Your task to perform on an android device: Go to sound settings Image 0: 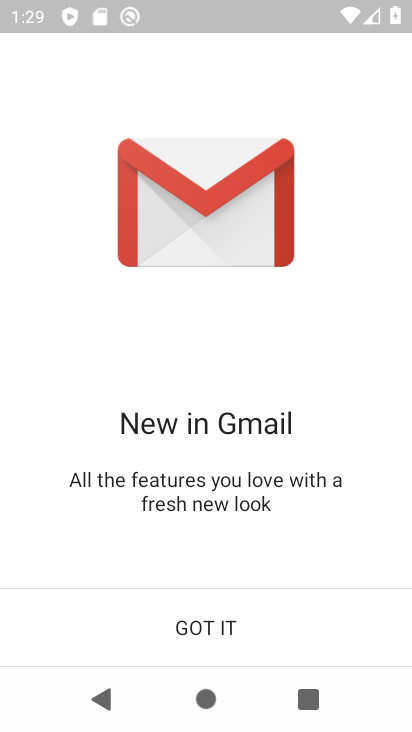
Step 0: press home button
Your task to perform on an android device: Go to sound settings Image 1: 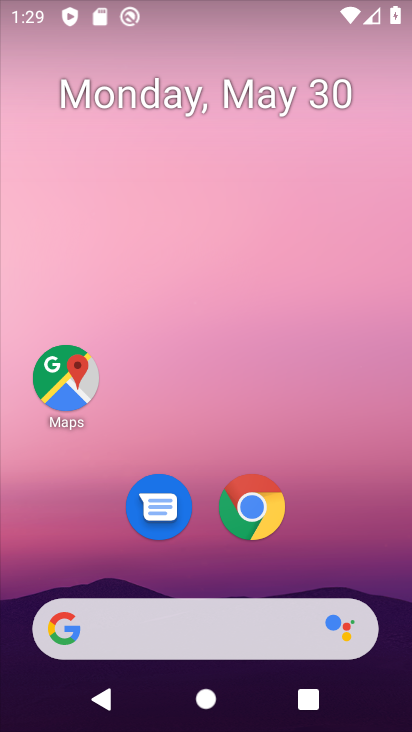
Step 1: drag from (220, 558) to (174, 105)
Your task to perform on an android device: Go to sound settings Image 2: 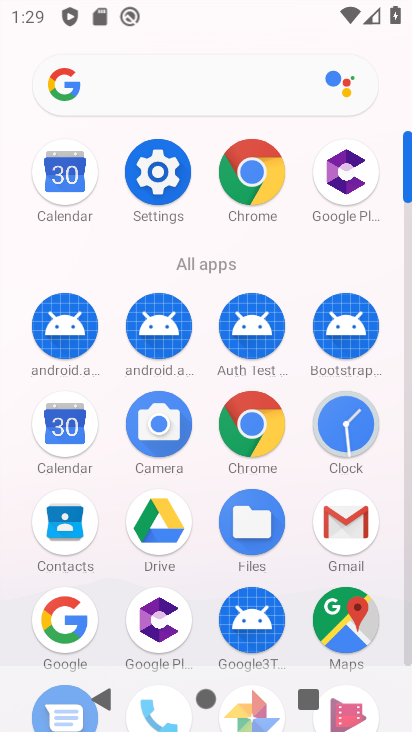
Step 2: click (147, 183)
Your task to perform on an android device: Go to sound settings Image 3: 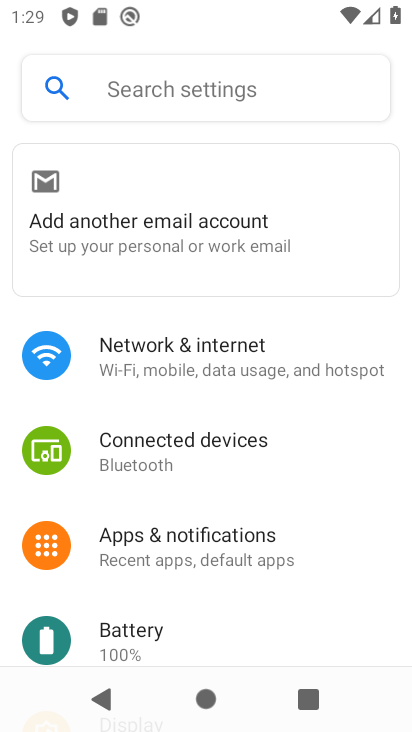
Step 3: click (209, 162)
Your task to perform on an android device: Go to sound settings Image 4: 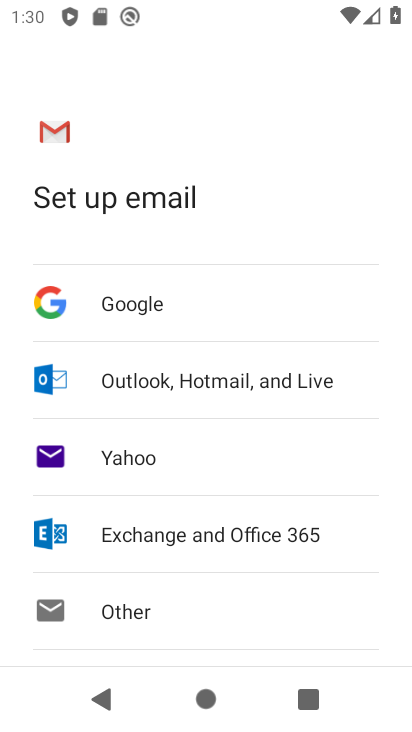
Step 4: press back button
Your task to perform on an android device: Go to sound settings Image 5: 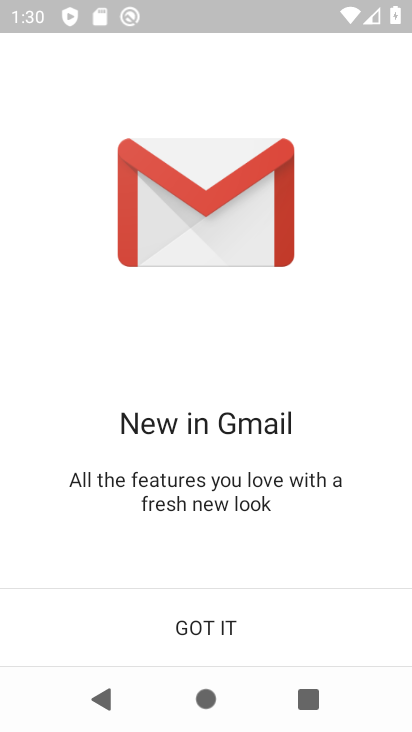
Step 5: press home button
Your task to perform on an android device: Go to sound settings Image 6: 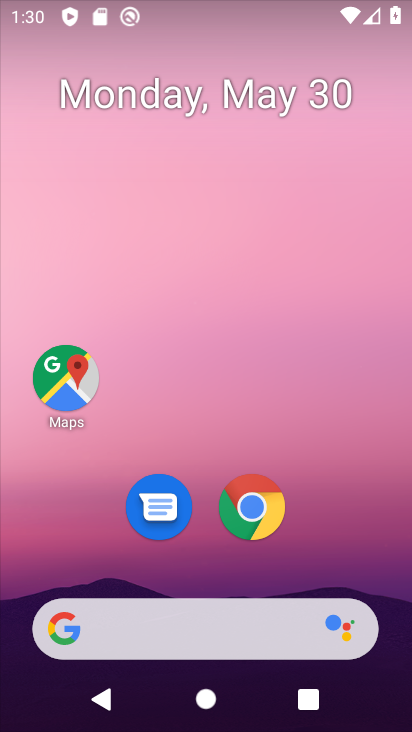
Step 6: drag from (206, 113) to (11, 143)
Your task to perform on an android device: Go to sound settings Image 7: 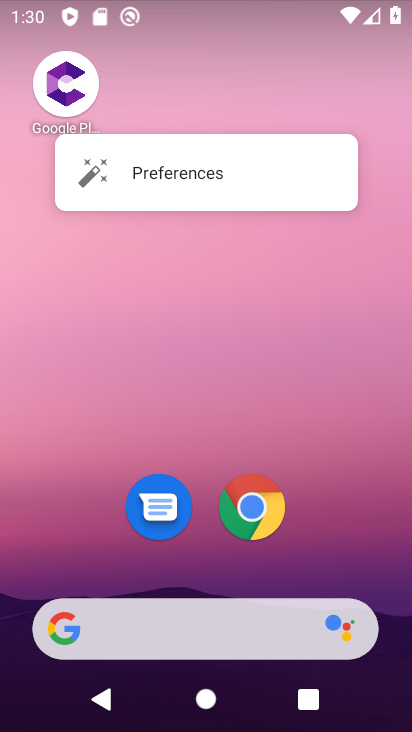
Step 7: click (317, 523)
Your task to perform on an android device: Go to sound settings Image 8: 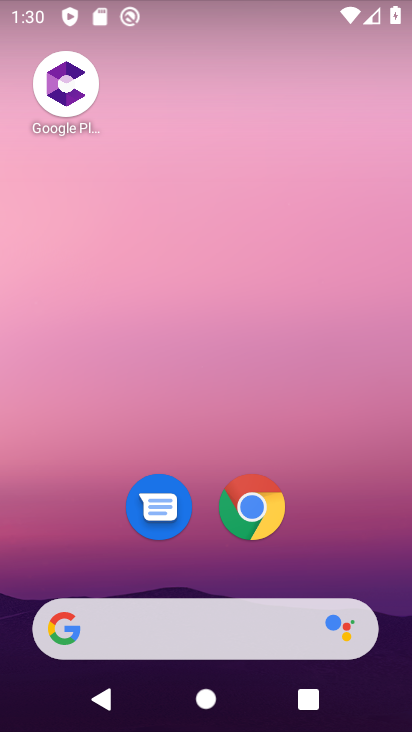
Step 8: drag from (292, 553) to (222, 43)
Your task to perform on an android device: Go to sound settings Image 9: 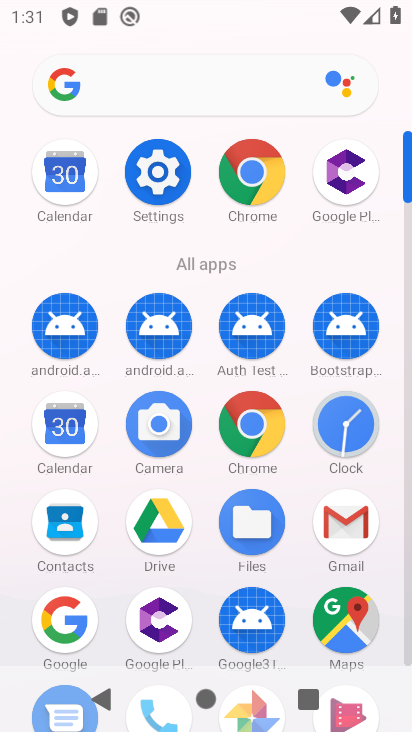
Step 9: click (160, 176)
Your task to perform on an android device: Go to sound settings Image 10: 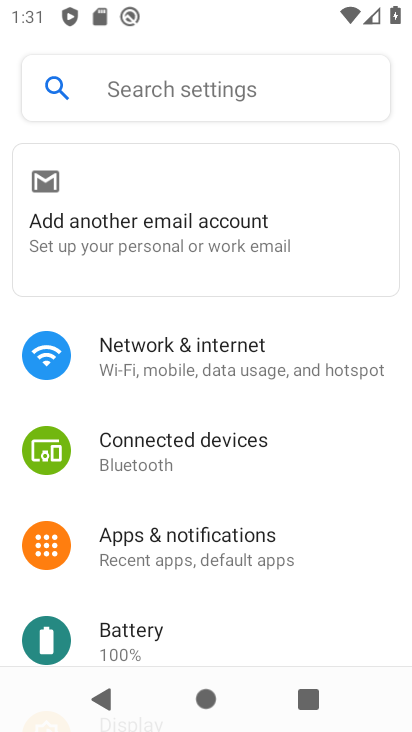
Step 10: drag from (161, 598) to (174, 322)
Your task to perform on an android device: Go to sound settings Image 11: 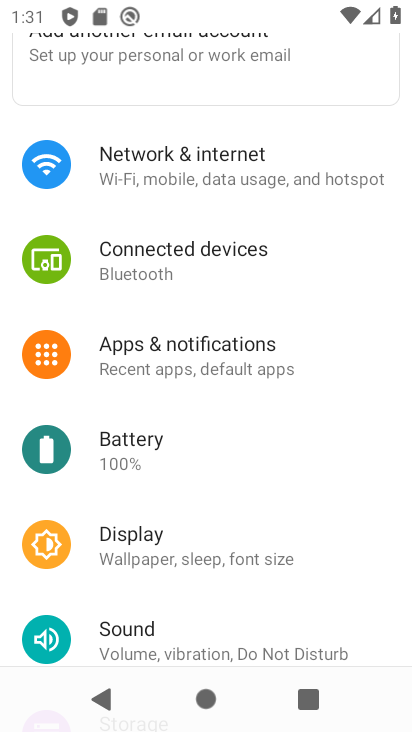
Step 11: click (144, 642)
Your task to perform on an android device: Go to sound settings Image 12: 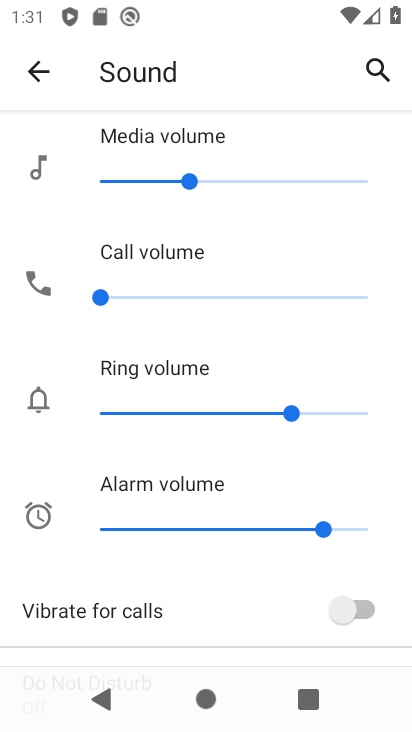
Step 12: task complete